Your task to perform on an android device: Go to display settings Image 0: 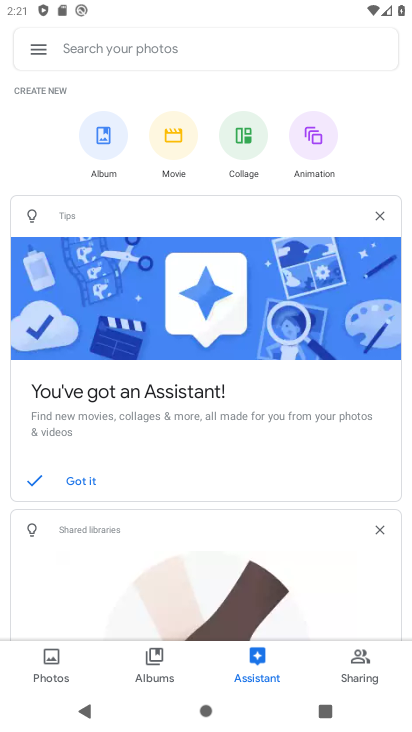
Step 0: press home button
Your task to perform on an android device: Go to display settings Image 1: 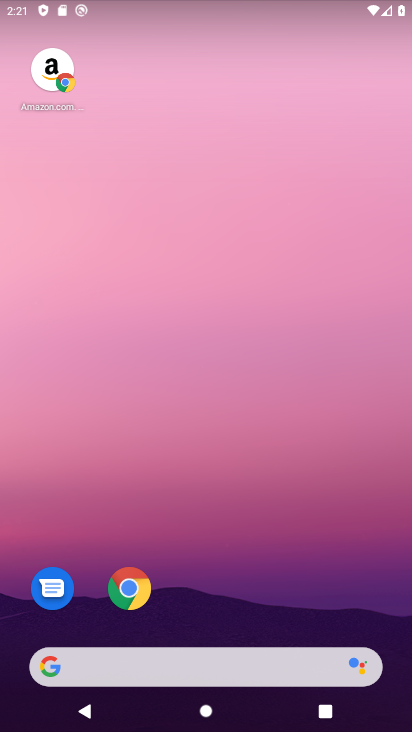
Step 1: drag from (286, 521) to (222, 96)
Your task to perform on an android device: Go to display settings Image 2: 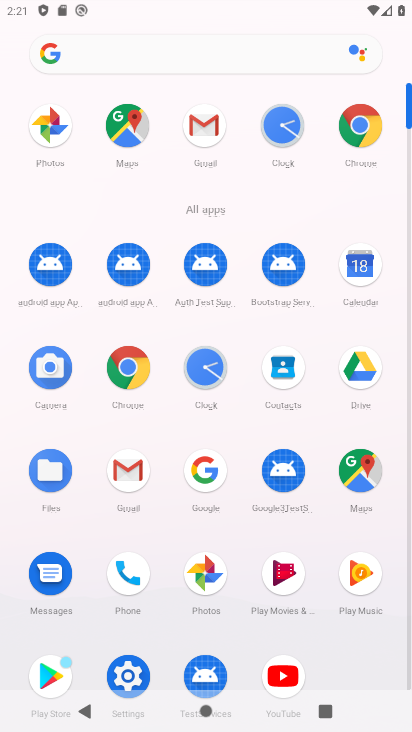
Step 2: click (134, 674)
Your task to perform on an android device: Go to display settings Image 3: 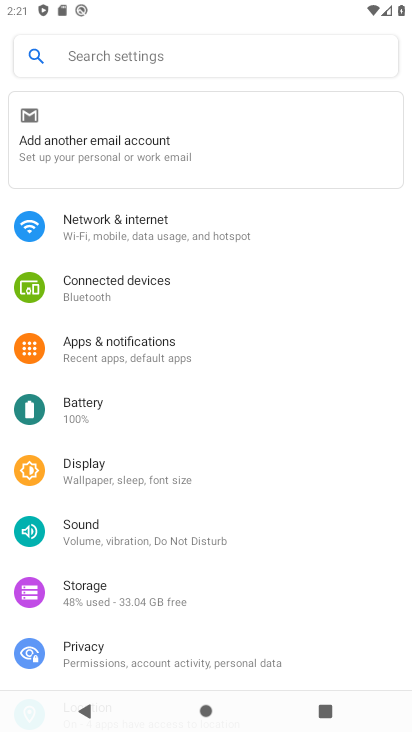
Step 3: click (129, 476)
Your task to perform on an android device: Go to display settings Image 4: 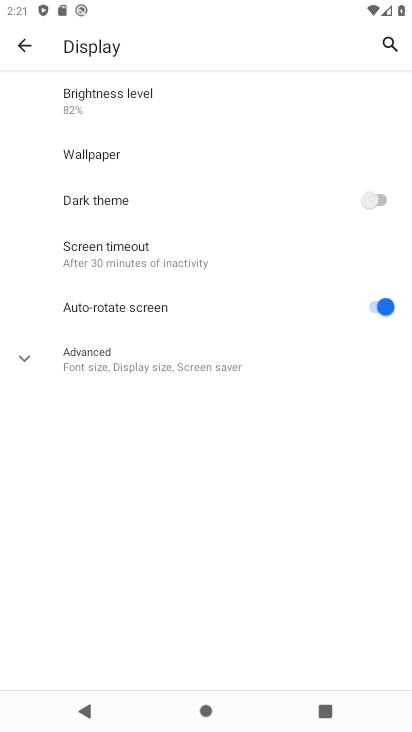
Step 4: task complete